Your task to perform on an android device: choose inbox layout in the gmail app Image 0: 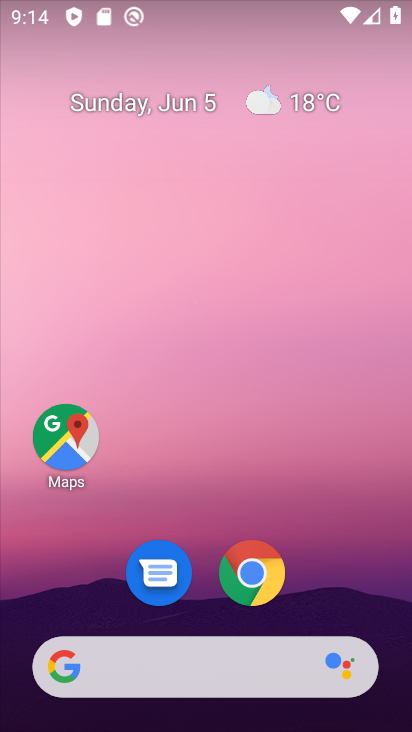
Step 0: drag from (244, 728) to (197, 109)
Your task to perform on an android device: choose inbox layout in the gmail app Image 1: 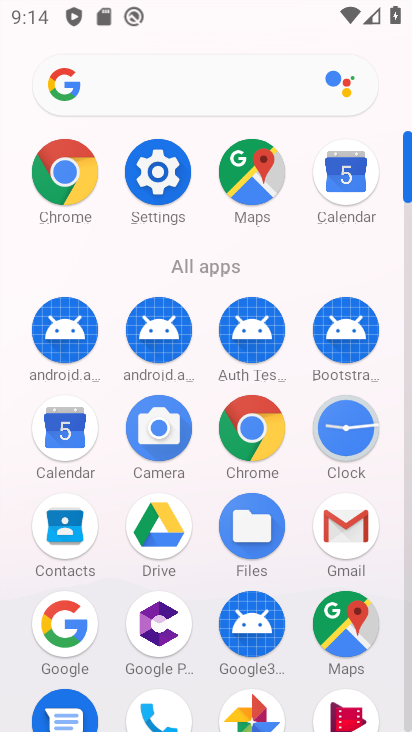
Step 1: click (346, 519)
Your task to perform on an android device: choose inbox layout in the gmail app Image 2: 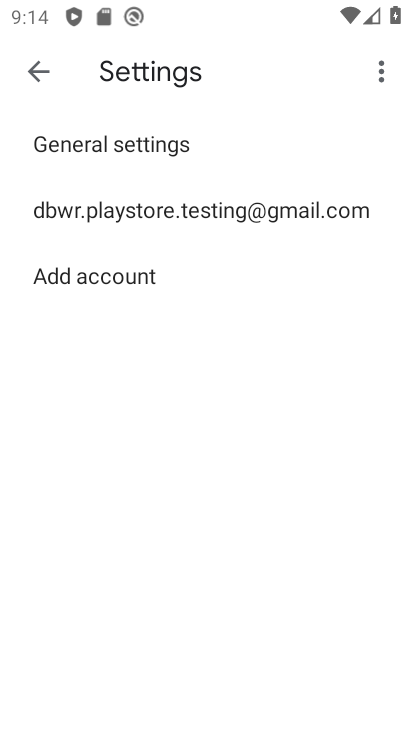
Step 2: click (158, 210)
Your task to perform on an android device: choose inbox layout in the gmail app Image 3: 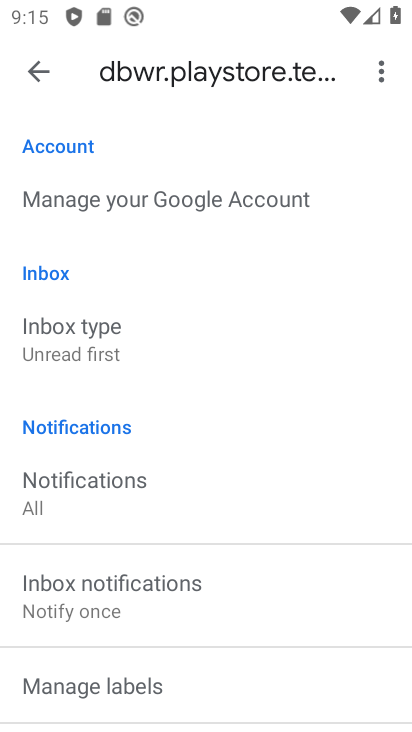
Step 3: click (100, 339)
Your task to perform on an android device: choose inbox layout in the gmail app Image 4: 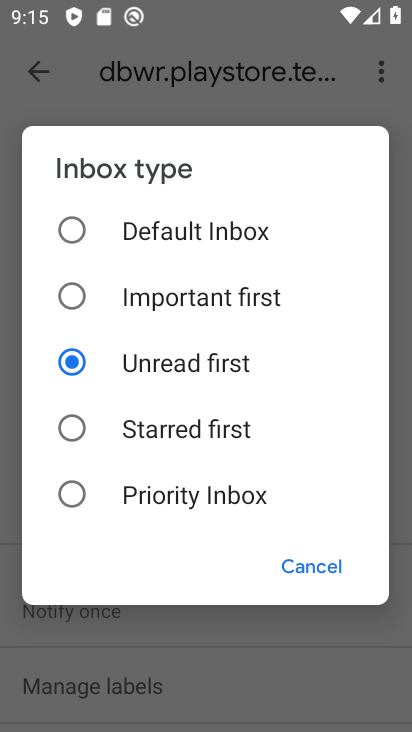
Step 4: click (80, 229)
Your task to perform on an android device: choose inbox layout in the gmail app Image 5: 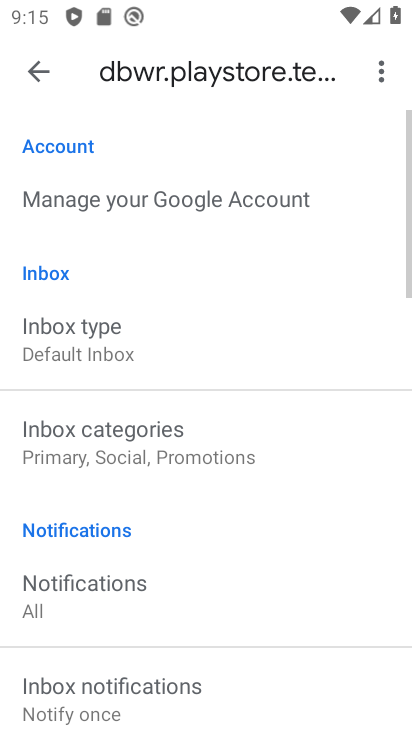
Step 5: task complete